Your task to perform on an android device: change the clock display to analog Image 0: 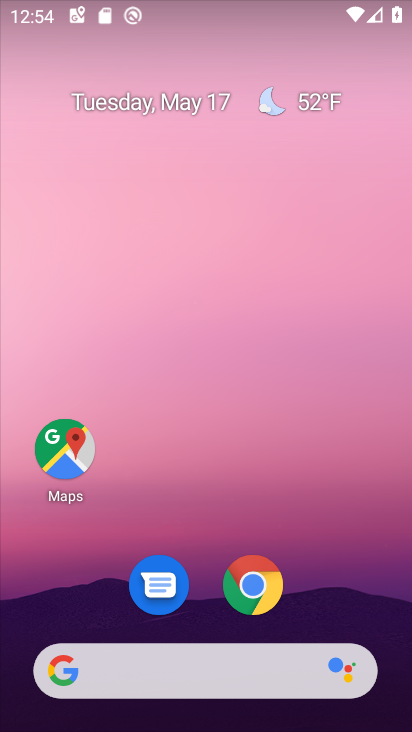
Step 0: drag from (309, 581) to (275, 79)
Your task to perform on an android device: change the clock display to analog Image 1: 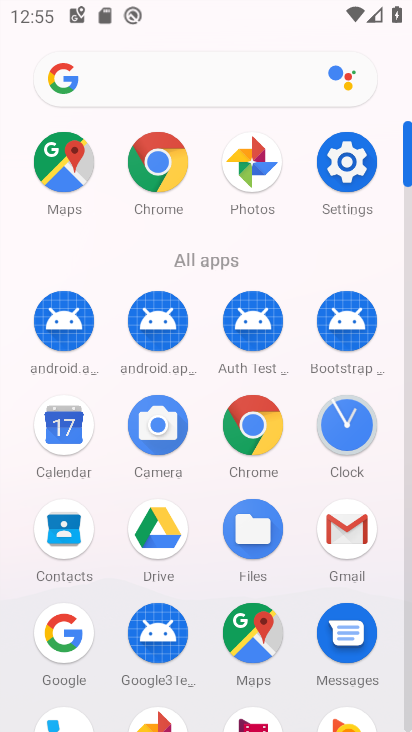
Step 1: click (345, 433)
Your task to perform on an android device: change the clock display to analog Image 2: 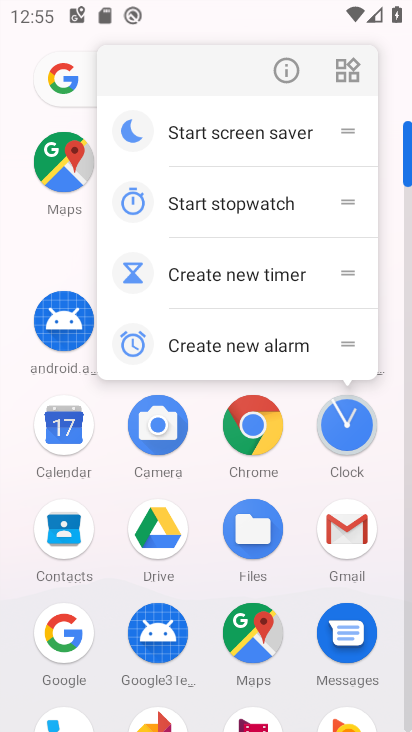
Step 2: click (347, 432)
Your task to perform on an android device: change the clock display to analog Image 3: 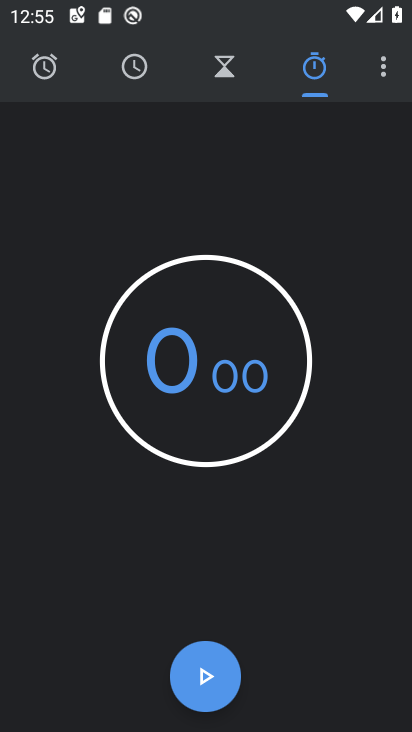
Step 3: click (138, 64)
Your task to perform on an android device: change the clock display to analog Image 4: 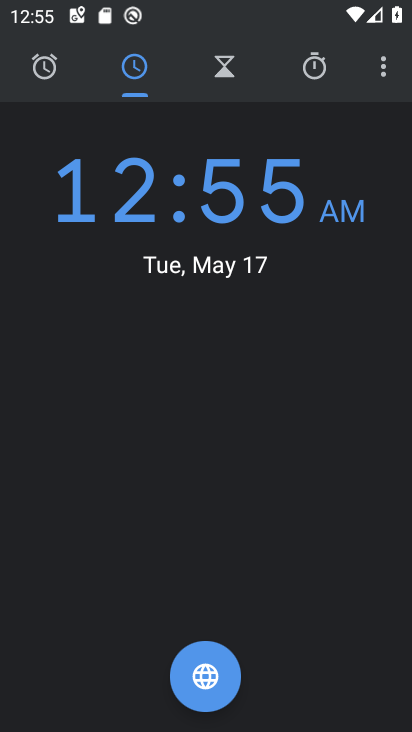
Step 4: click (383, 66)
Your task to perform on an android device: change the clock display to analog Image 5: 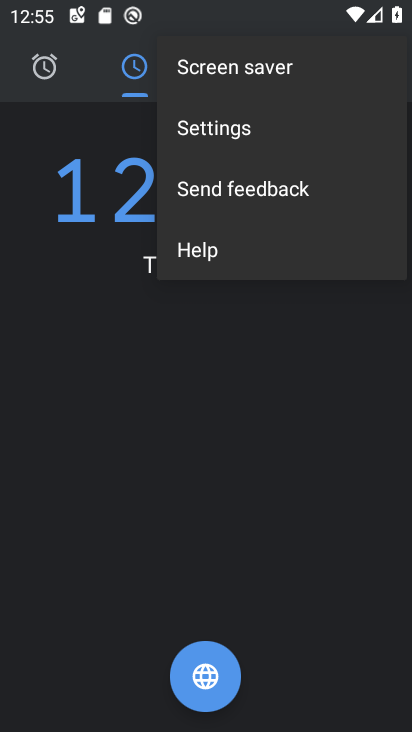
Step 5: click (268, 128)
Your task to perform on an android device: change the clock display to analog Image 6: 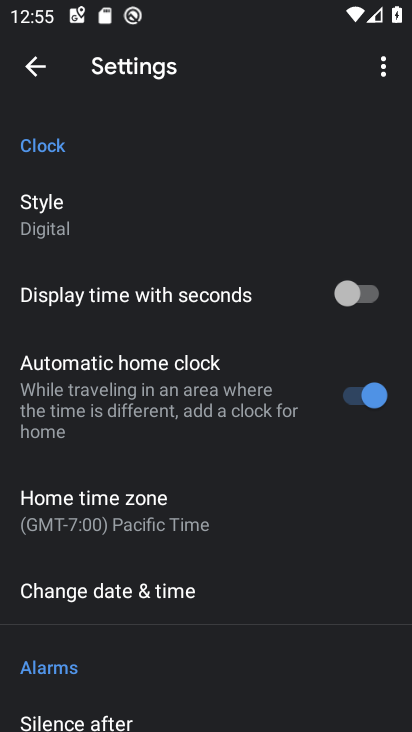
Step 6: click (102, 216)
Your task to perform on an android device: change the clock display to analog Image 7: 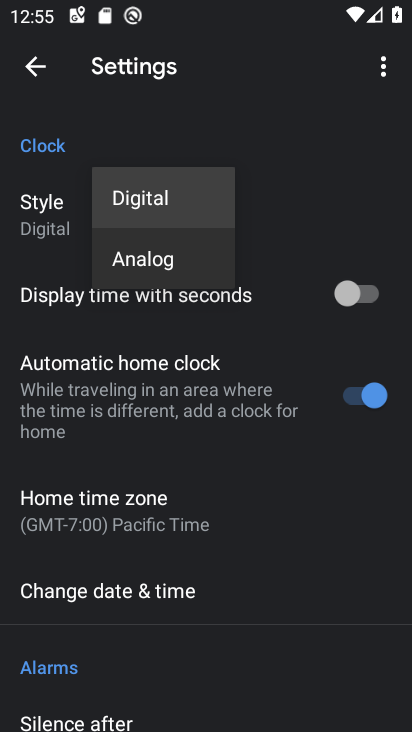
Step 7: click (125, 252)
Your task to perform on an android device: change the clock display to analog Image 8: 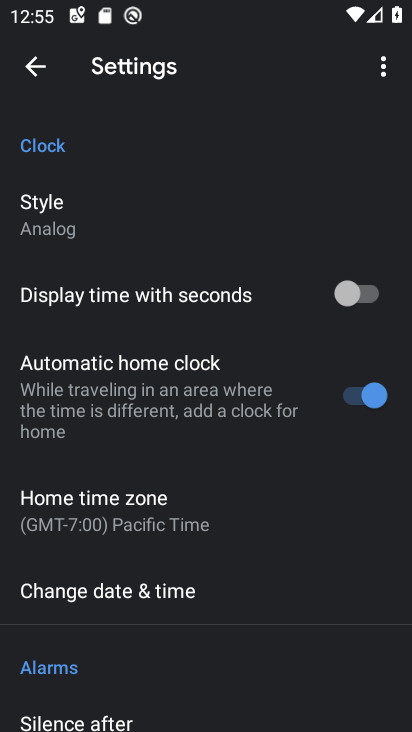
Step 8: click (38, 64)
Your task to perform on an android device: change the clock display to analog Image 9: 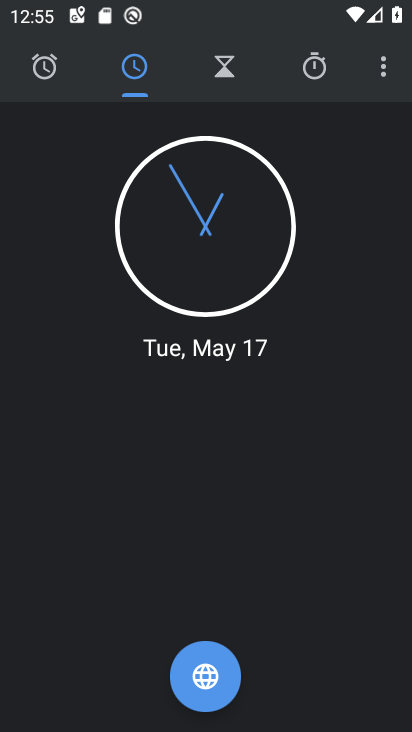
Step 9: task complete